Your task to perform on an android device: open app "Facebook" (install if not already installed), go to login, and select forgot password Image 0: 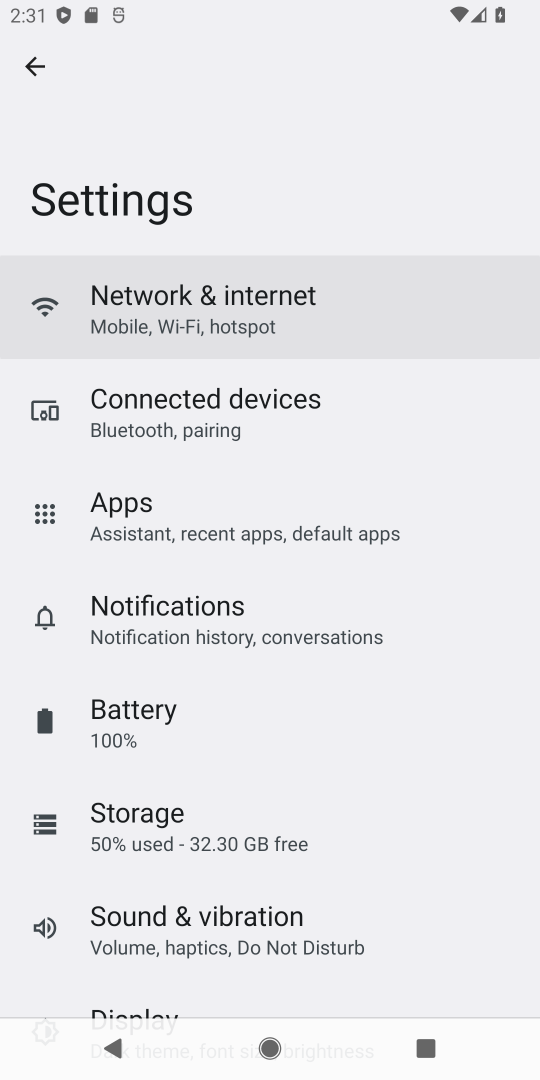
Step 0: press home button
Your task to perform on an android device: open app "Facebook" (install if not already installed), go to login, and select forgot password Image 1: 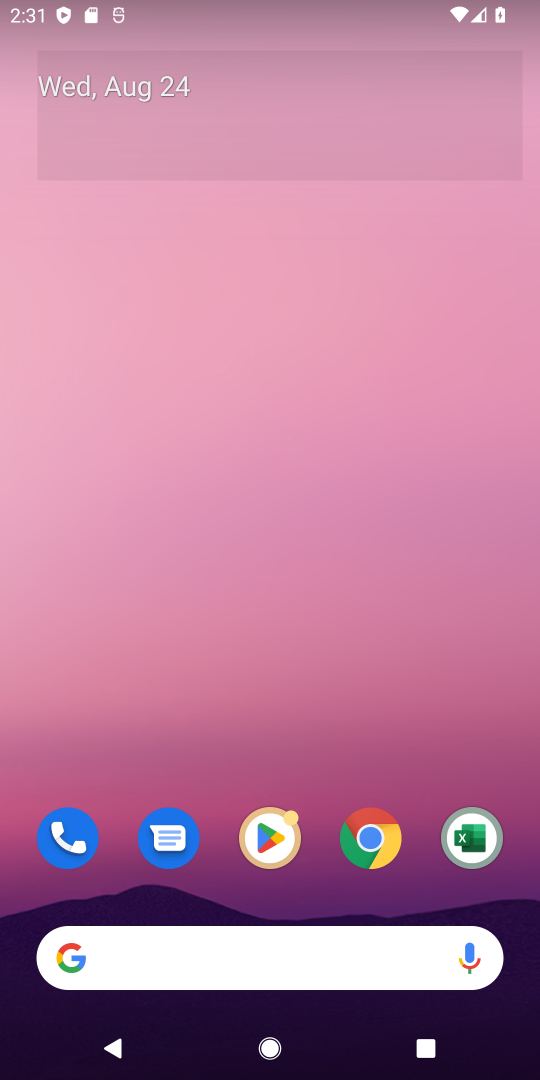
Step 1: drag from (433, 748) to (440, 165)
Your task to perform on an android device: open app "Facebook" (install if not already installed), go to login, and select forgot password Image 2: 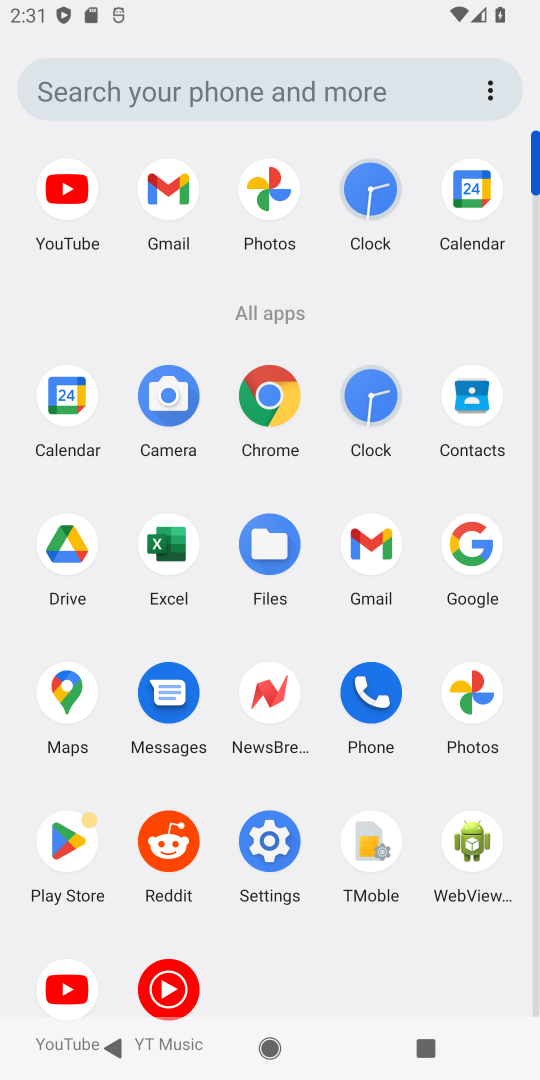
Step 2: click (64, 846)
Your task to perform on an android device: open app "Facebook" (install if not already installed), go to login, and select forgot password Image 3: 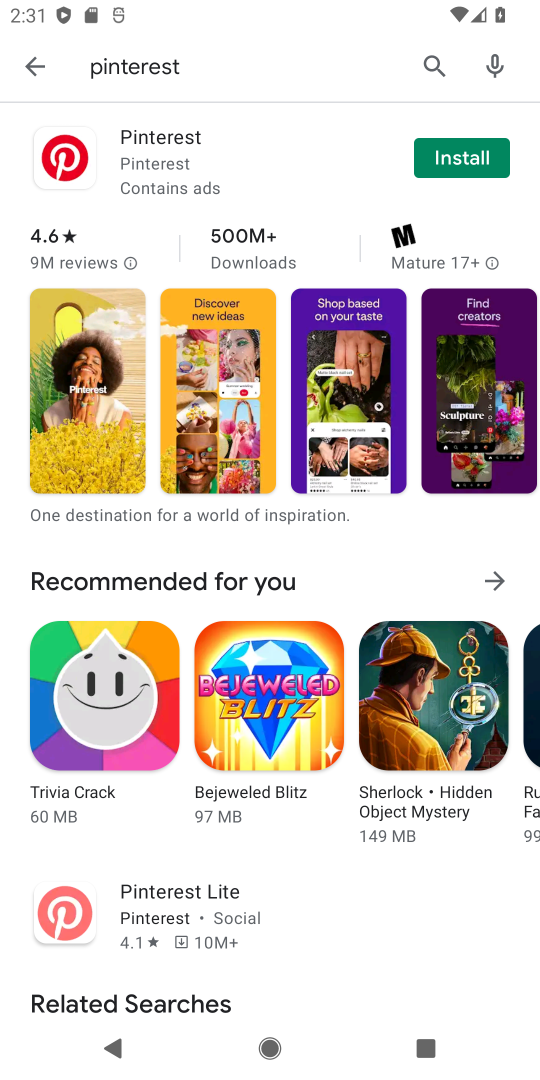
Step 3: press back button
Your task to perform on an android device: open app "Facebook" (install if not already installed), go to login, and select forgot password Image 4: 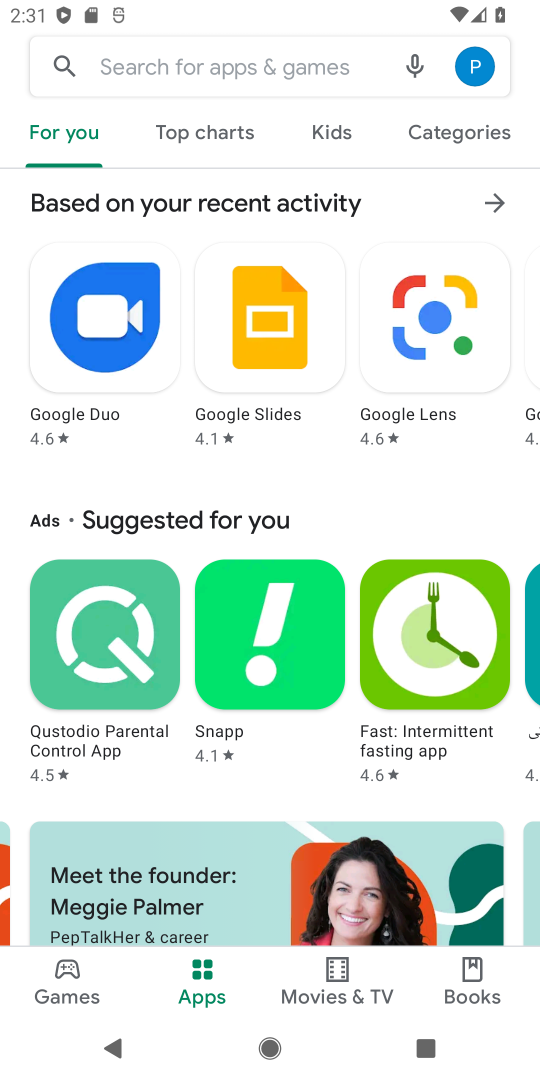
Step 4: click (323, 73)
Your task to perform on an android device: open app "Facebook" (install if not already installed), go to login, and select forgot password Image 5: 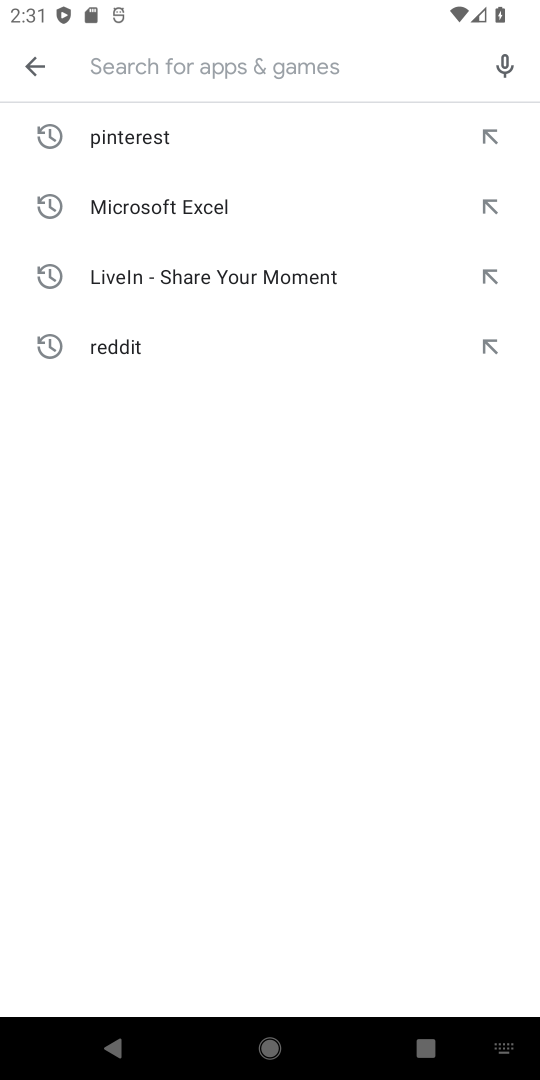
Step 5: type "facebook"
Your task to perform on an android device: open app "Facebook" (install if not already installed), go to login, and select forgot password Image 6: 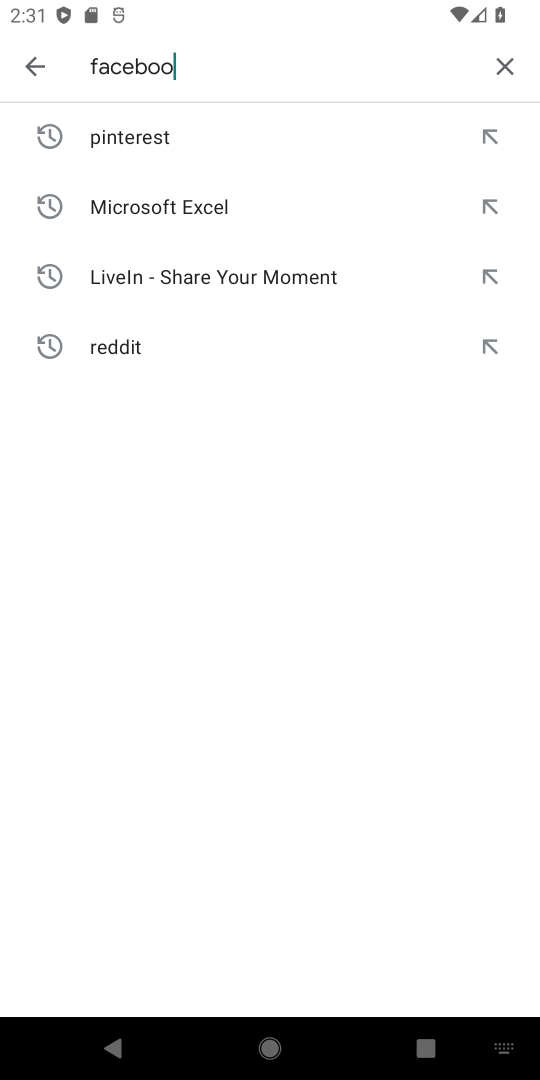
Step 6: press enter
Your task to perform on an android device: open app "Facebook" (install if not already installed), go to login, and select forgot password Image 7: 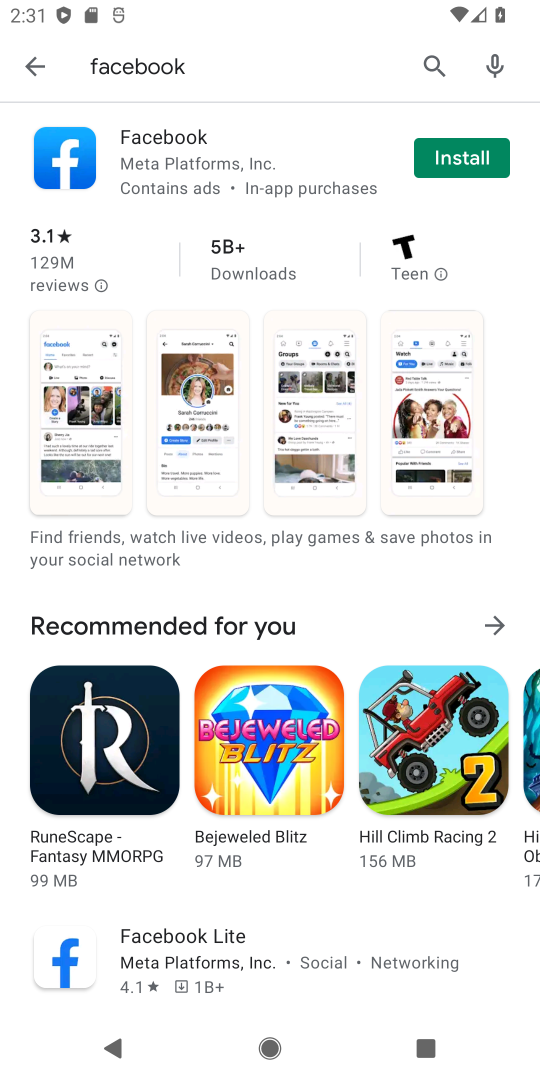
Step 7: click (448, 148)
Your task to perform on an android device: open app "Facebook" (install if not already installed), go to login, and select forgot password Image 8: 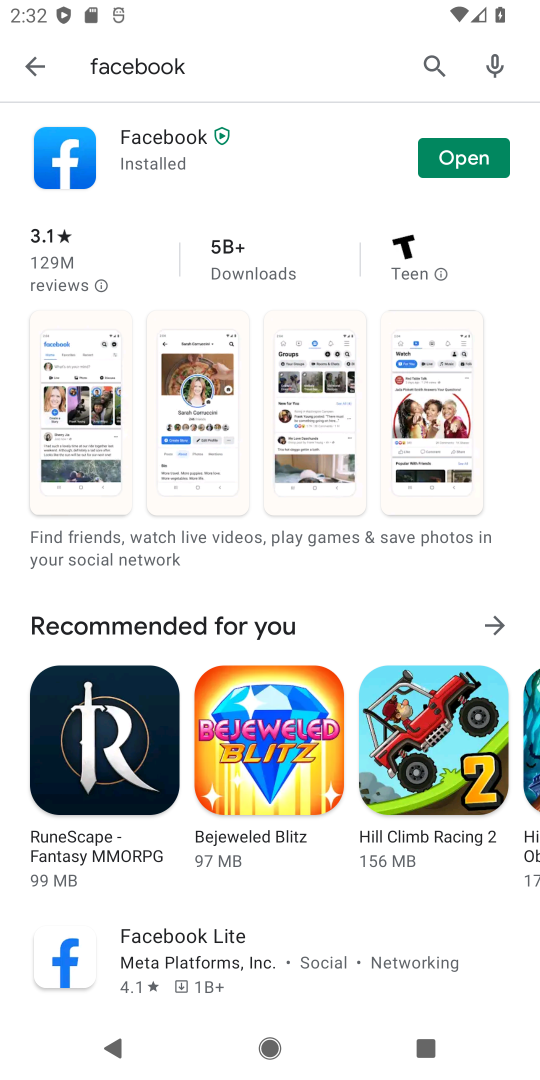
Step 8: click (458, 157)
Your task to perform on an android device: open app "Facebook" (install if not already installed), go to login, and select forgot password Image 9: 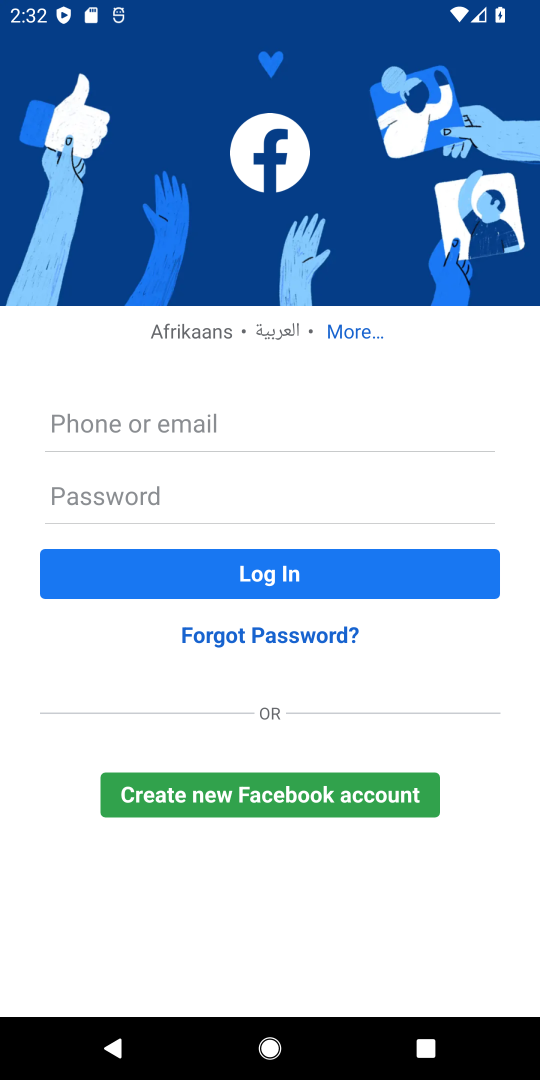
Step 9: click (268, 636)
Your task to perform on an android device: open app "Facebook" (install if not already installed), go to login, and select forgot password Image 10: 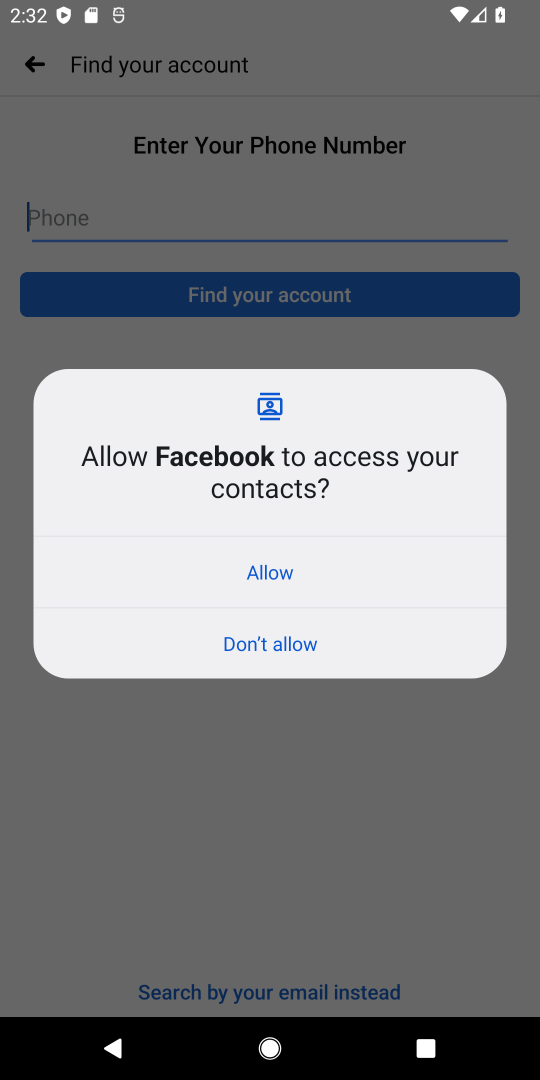
Step 10: task complete